Your task to perform on an android device: Search for sushi restaurants on Maps Image 0: 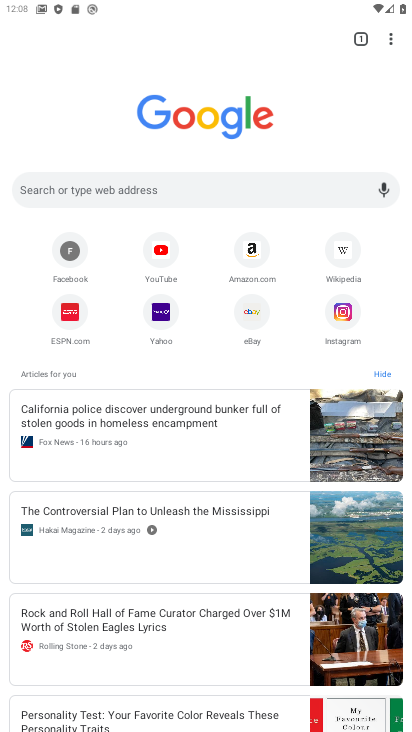
Step 0: press home button
Your task to perform on an android device: Search for sushi restaurants on Maps Image 1: 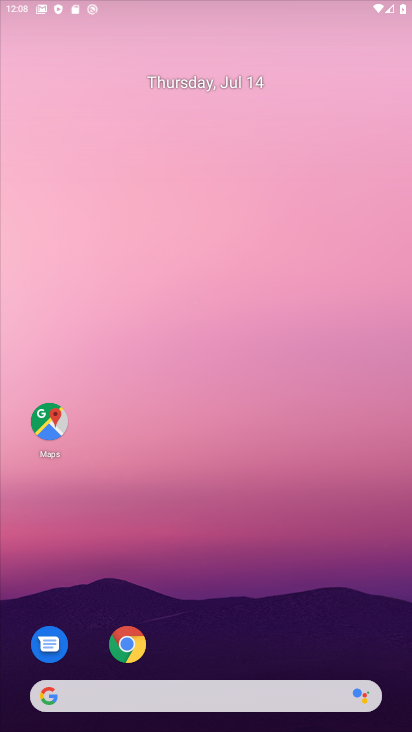
Step 1: drag from (123, 637) to (81, 33)
Your task to perform on an android device: Search for sushi restaurants on Maps Image 2: 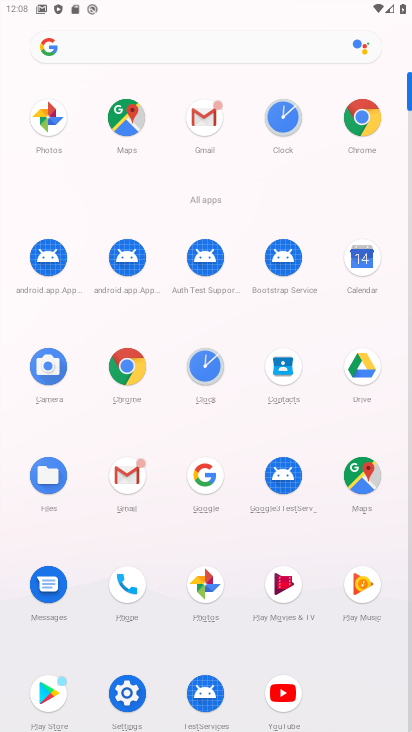
Step 2: click (374, 474)
Your task to perform on an android device: Search for sushi restaurants on Maps Image 3: 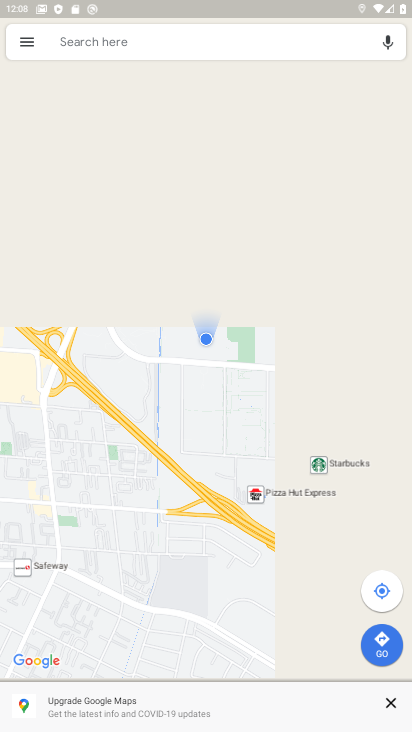
Step 3: click (68, 56)
Your task to perform on an android device: Search for sushi restaurants on Maps Image 4: 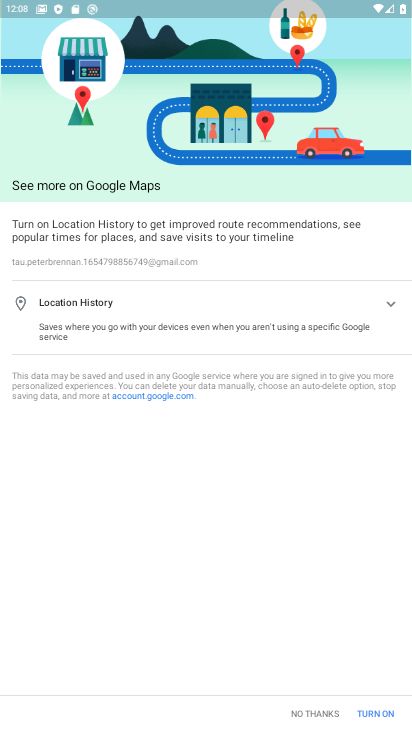
Step 4: click (374, 716)
Your task to perform on an android device: Search for sushi restaurants on Maps Image 5: 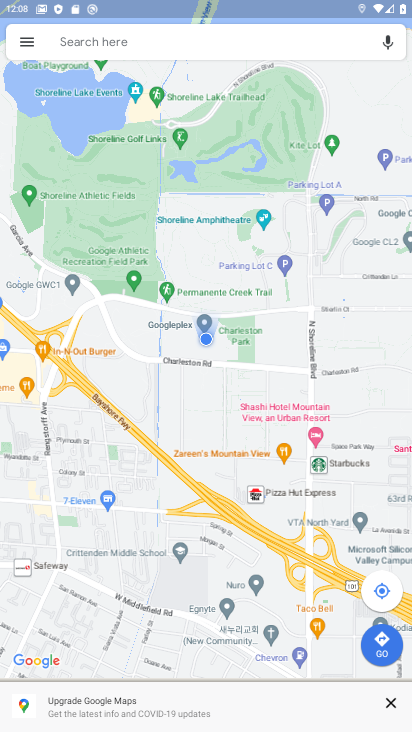
Step 5: click (176, 38)
Your task to perform on an android device: Search for sushi restaurants on Maps Image 6: 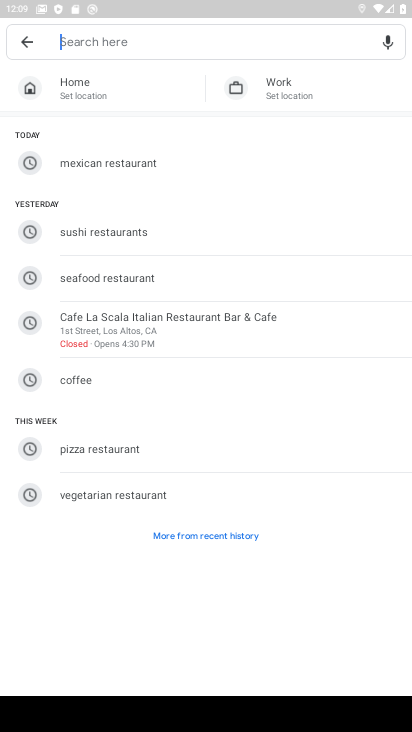
Step 6: click (248, 33)
Your task to perform on an android device: Search for sushi restaurants on Maps Image 7: 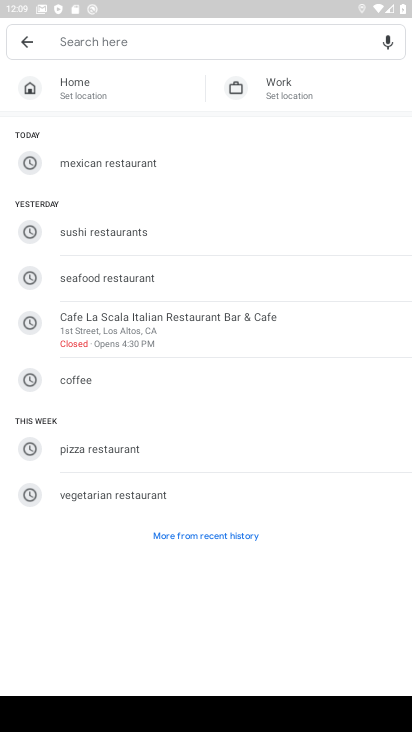
Step 7: type "italian restaurant"
Your task to perform on an android device: Search for sushi restaurants on Maps Image 8: 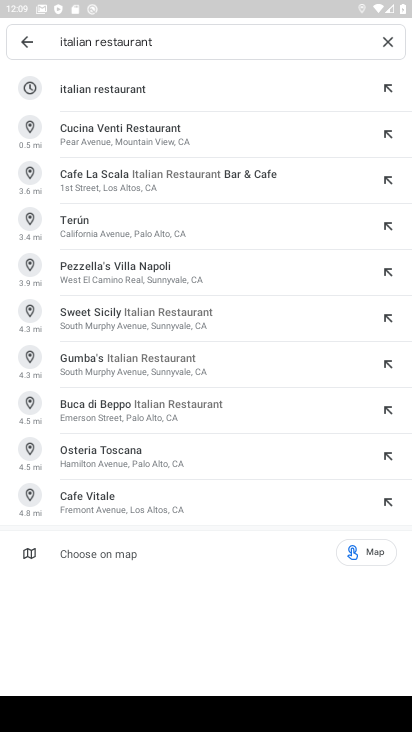
Step 8: click (185, 98)
Your task to perform on an android device: Search for sushi restaurants on Maps Image 9: 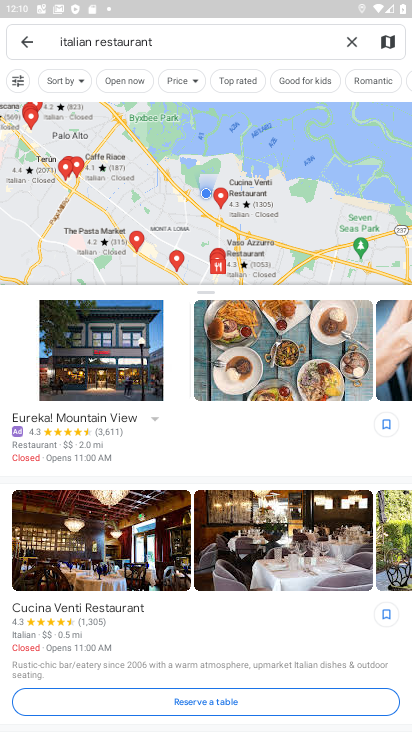
Step 9: task complete